Your task to perform on an android device: Search for sushi restaurants on Maps Image 0: 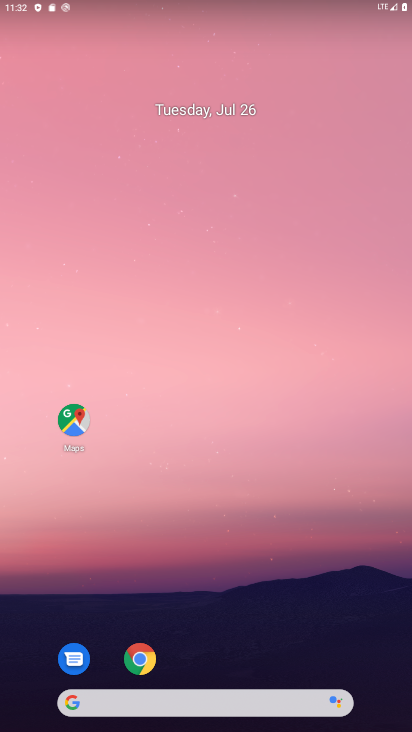
Step 0: click (77, 411)
Your task to perform on an android device: Search for sushi restaurants on Maps Image 1: 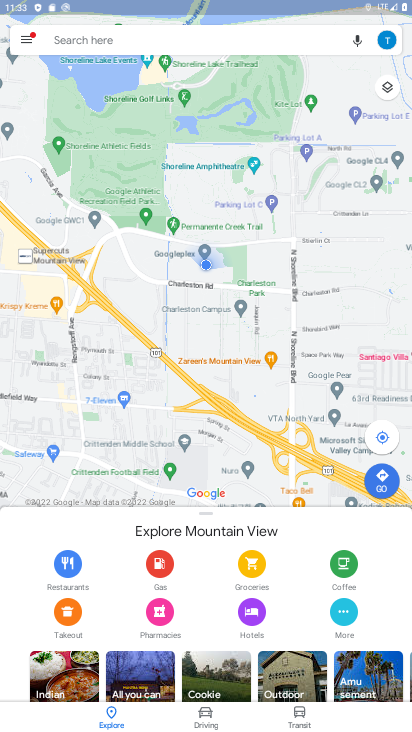
Step 1: click (165, 41)
Your task to perform on an android device: Search for sushi restaurants on Maps Image 2: 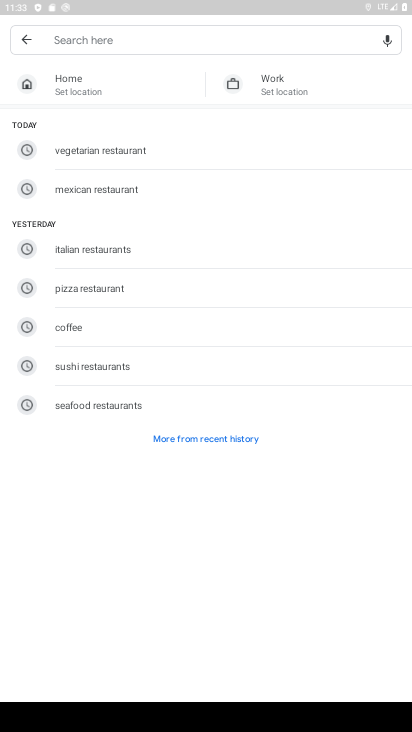
Step 2: click (94, 361)
Your task to perform on an android device: Search for sushi restaurants on Maps Image 3: 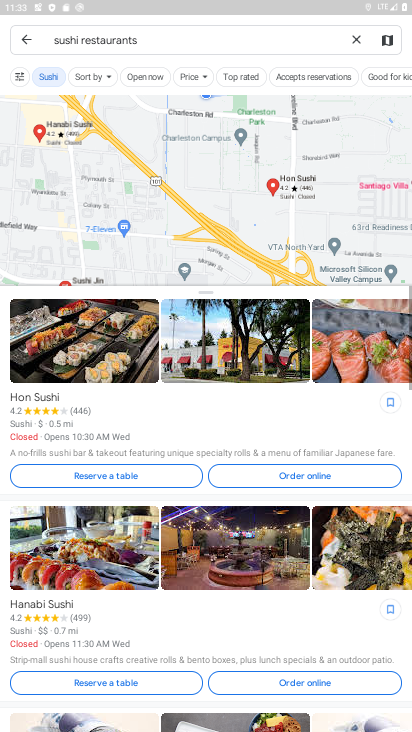
Step 3: task complete